Your task to perform on an android device: Open the map Image 0: 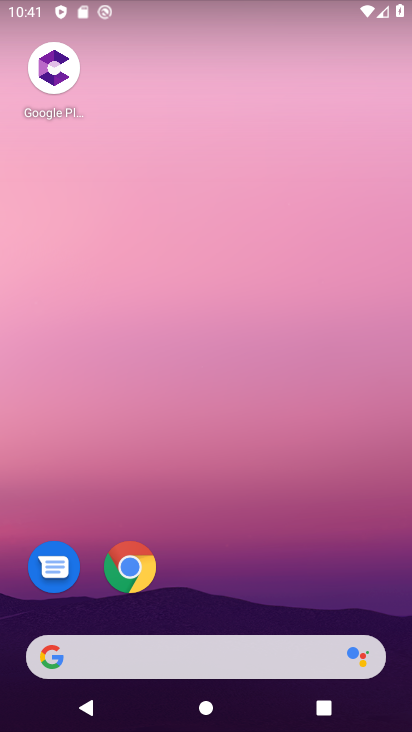
Step 0: drag from (217, 621) to (191, 74)
Your task to perform on an android device: Open the map Image 1: 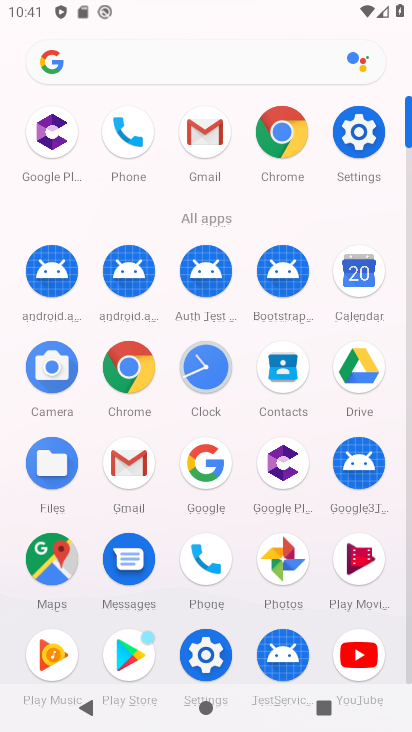
Step 1: click (50, 551)
Your task to perform on an android device: Open the map Image 2: 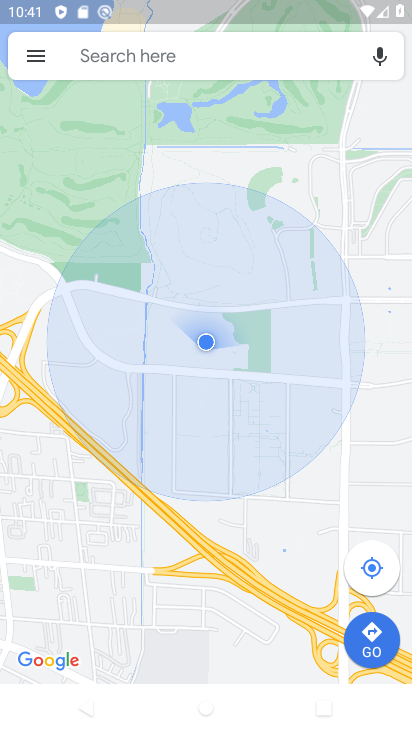
Step 2: task complete